Your task to perform on an android device: remove spam from my inbox in the gmail app Image 0: 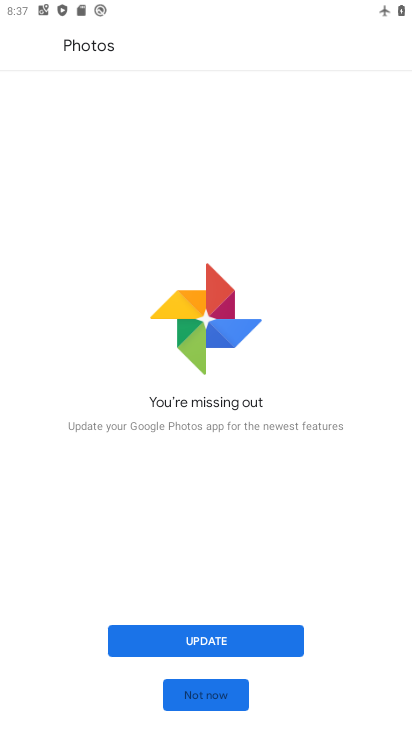
Step 0: press home button
Your task to perform on an android device: remove spam from my inbox in the gmail app Image 1: 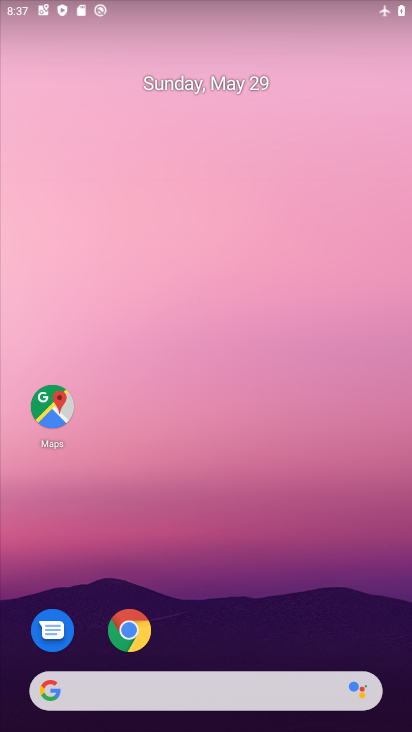
Step 1: drag from (192, 661) to (154, 196)
Your task to perform on an android device: remove spam from my inbox in the gmail app Image 2: 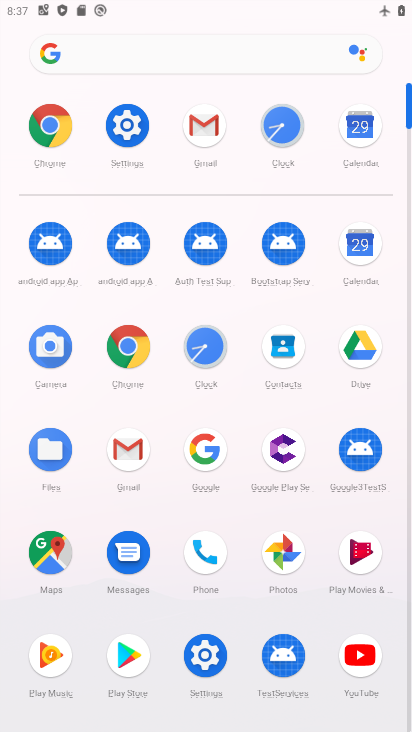
Step 2: click (129, 449)
Your task to perform on an android device: remove spam from my inbox in the gmail app Image 3: 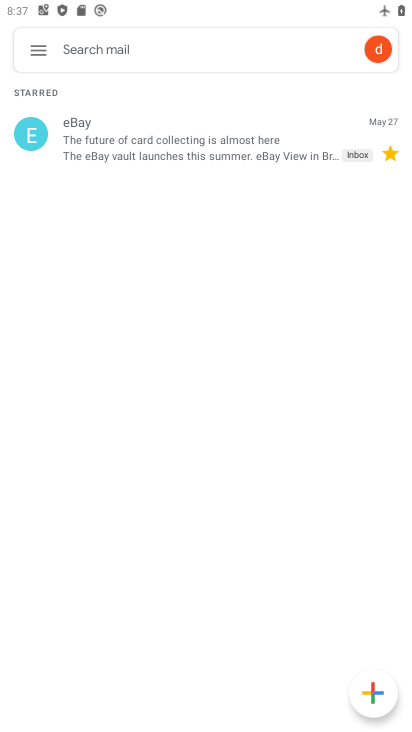
Step 3: click (45, 59)
Your task to perform on an android device: remove spam from my inbox in the gmail app Image 4: 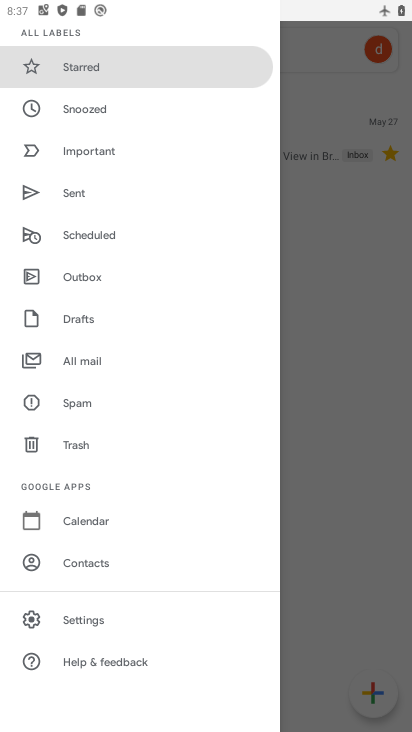
Step 4: click (72, 392)
Your task to perform on an android device: remove spam from my inbox in the gmail app Image 5: 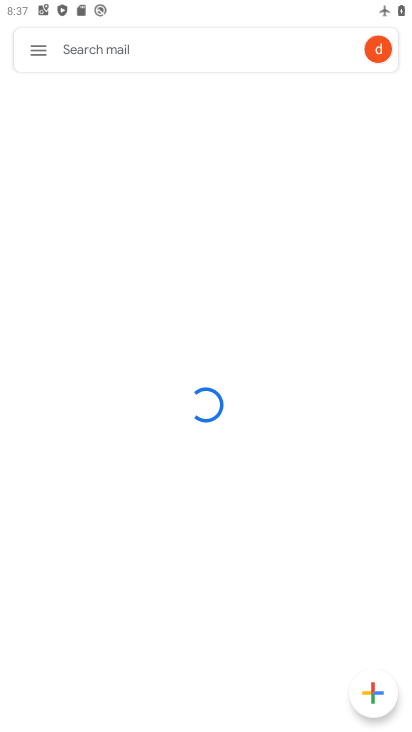
Step 5: task complete